Your task to perform on an android device: Open Android settings Image 0: 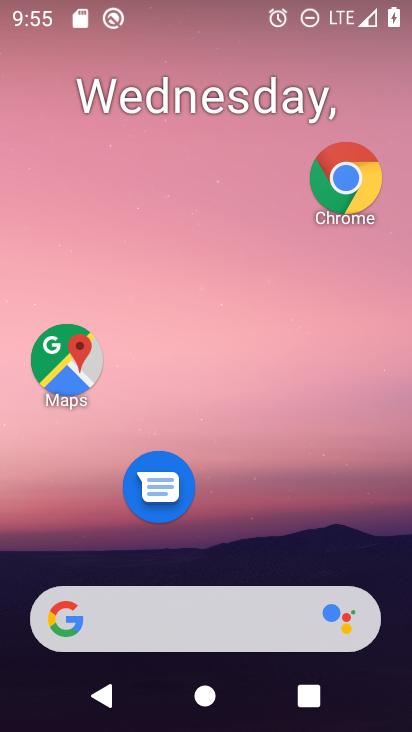
Step 0: drag from (247, 640) to (235, 211)
Your task to perform on an android device: Open Android settings Image 1: 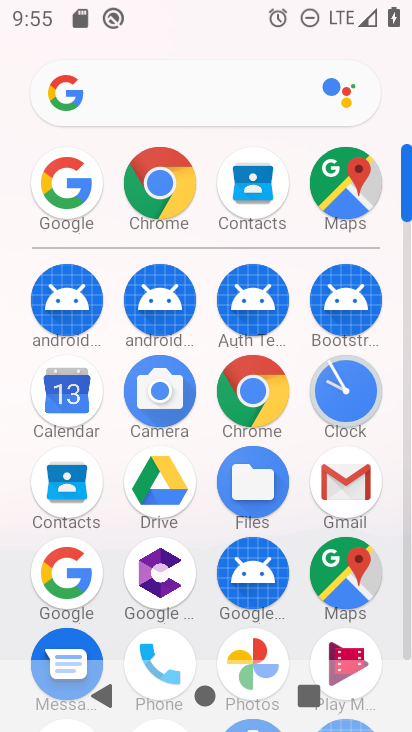
Step 1: drag from (259, 480) to (286, 199)
Your task to perform on an android device: Open Android settings Image 2: 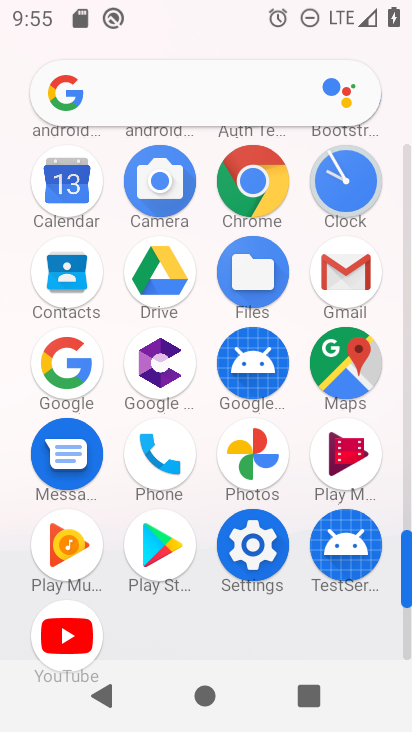
Step 2: click (271, 551)
Your task to perform on an android device: Open Android settings Image 3: 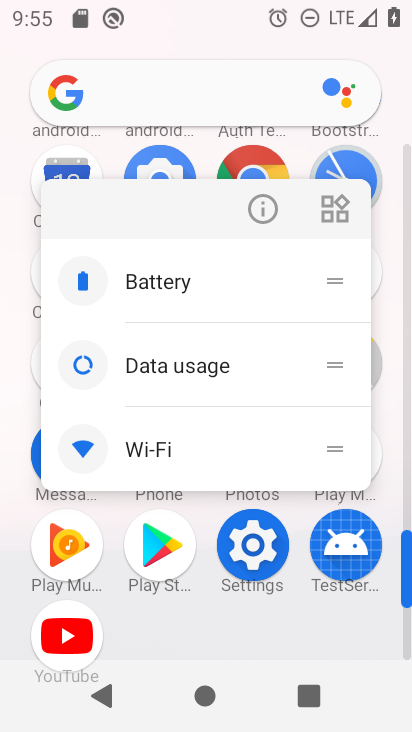
Step 3: click (268, 540)
Your task to perform on an android device: Open Android settings Image 4: 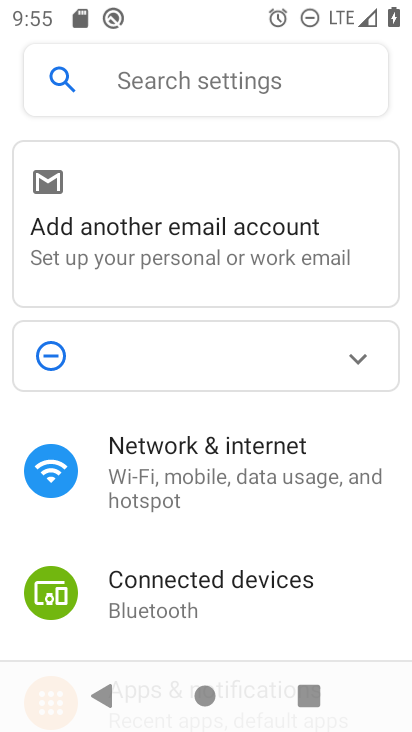
Step 4: drag from (248, 549) to (300, 117)
Your task to perform on an android device: Open Android settings Image 5: 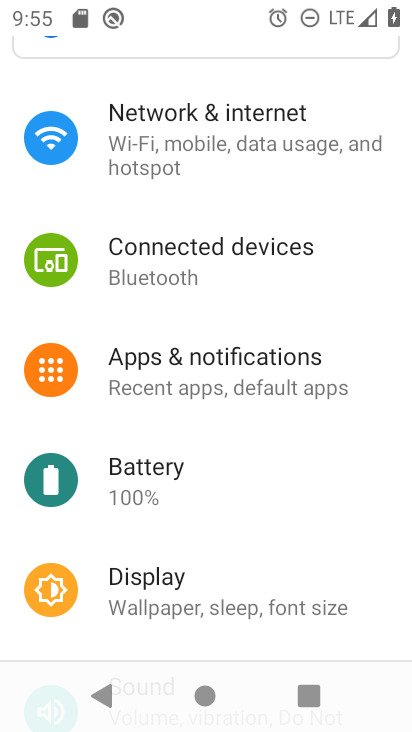
Step 5: drag from (223, 558) to (258, 206)
Your task to perform on an android device: Open Android settings Image 6: 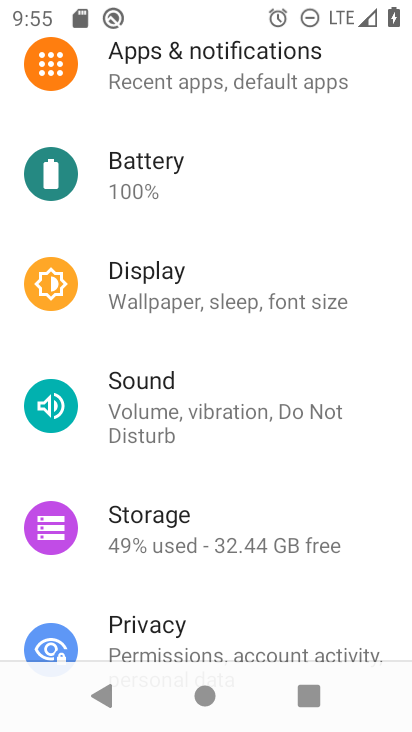
Step 6: drag from (215, 469) to (230, 197)
Your task to perform on an android device: Open Android settings Image 7: 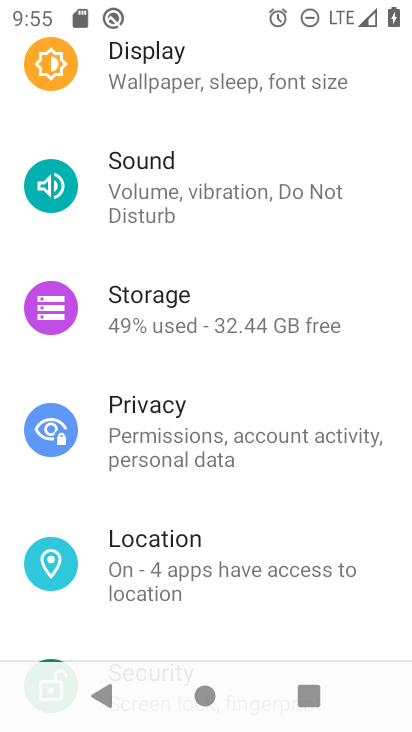
Step 7: drag from (221, 523) to (252, 255)
Your task to perform on an android device: Open Android settings Image 8: 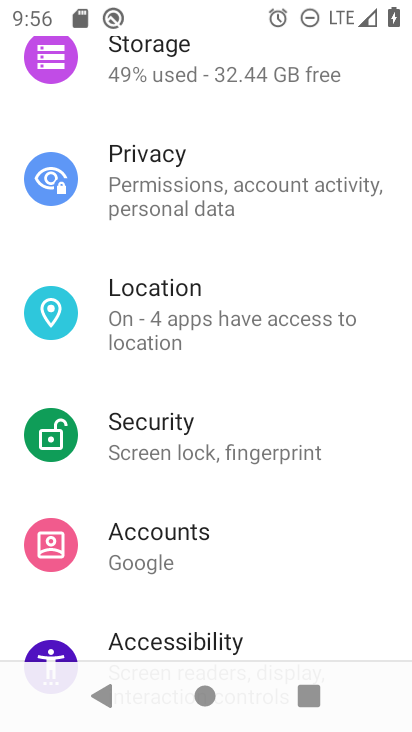
Step 8: drag from (215, 509) to (274, 217)
Your task to perform on an android device: Open Android settings Image 9: 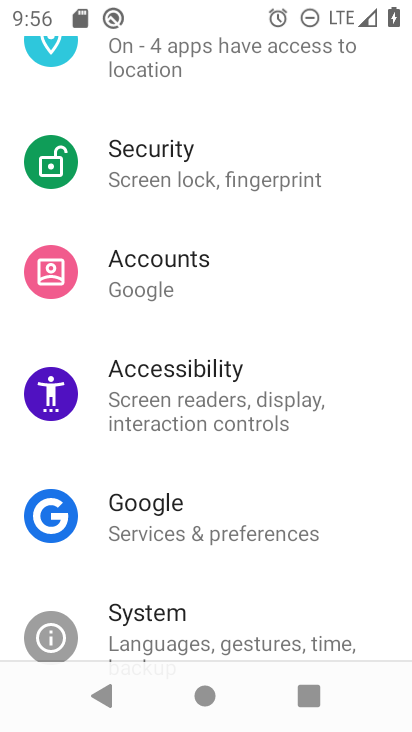
Step 9: drag from (212, 561) to (251, 291)
Your task to perform on an android device: Open Android settings Image 10: 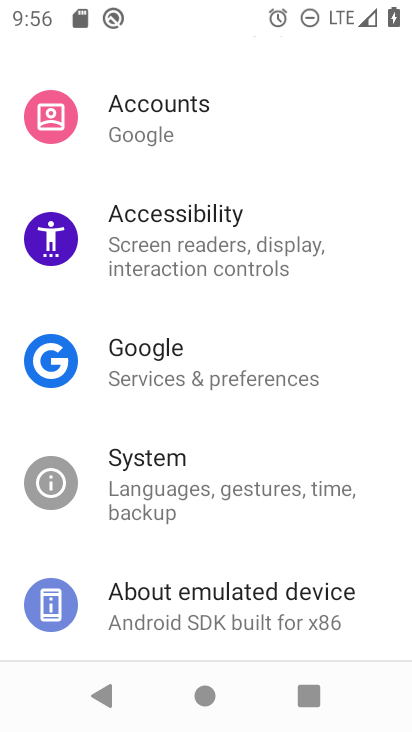
Step 10: click (208, 601)
Your task to perform on an android device: Open Android settings Image 11: 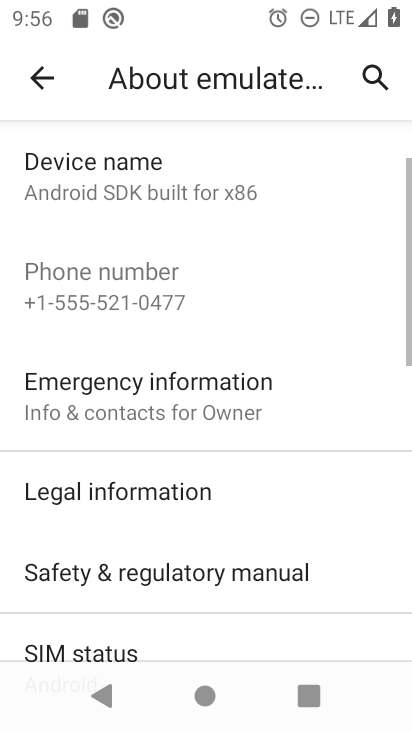
Step 11: drag from (159, 539) to (180, 283)
Your task to perform on an android device: Open Android settings Image 12: 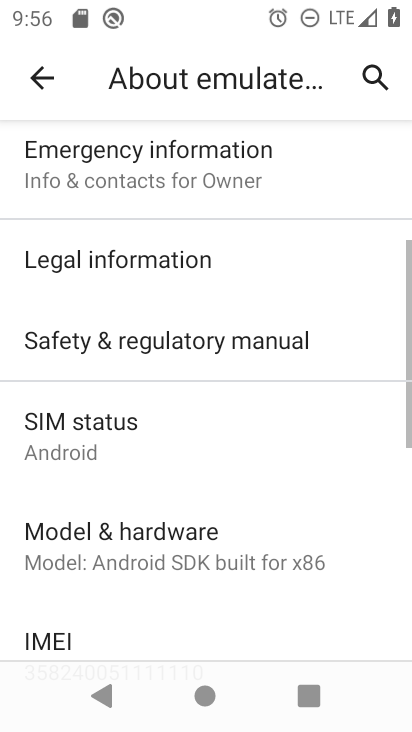
Step 12: drag from (147, 558) to (155, 371)
Your task to perform on an android device: Open Android settings Image 13: 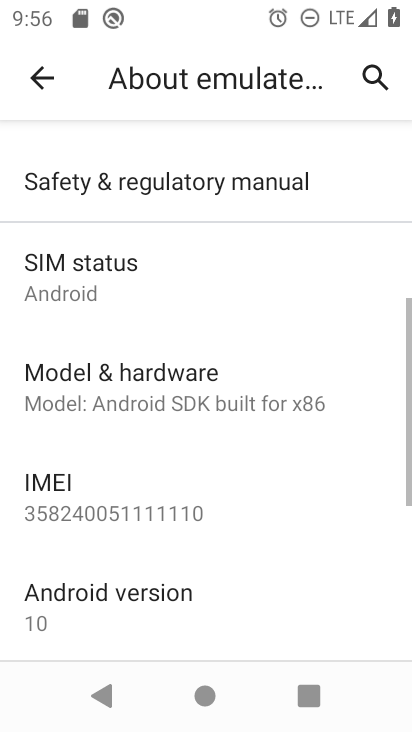
Step 13: click (128, 623)
Your task to perform on an android device: Open Android settings Image 14: 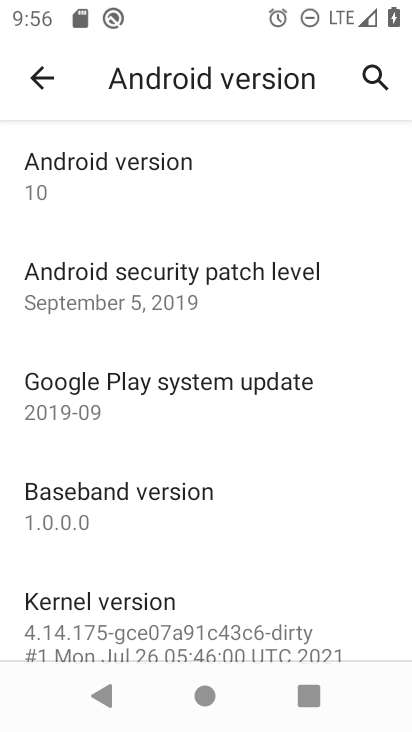
Step 14: task complete